Your task to perform on an android device: Open Google Chrome and open the bookmarks view Image 0: 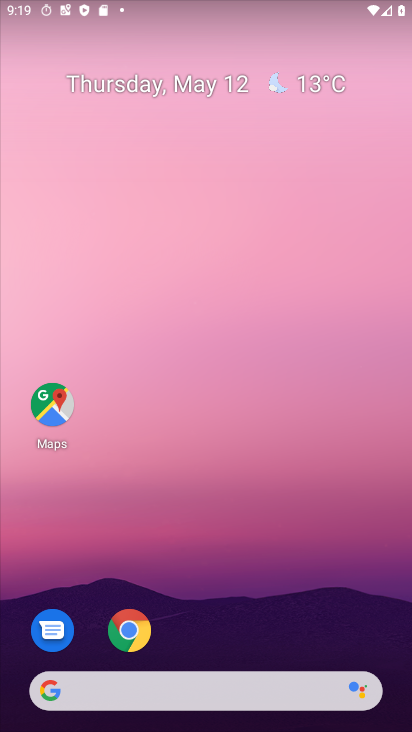
Step 0: click (118, 654)
Your task to perform on an android device: Open Google Chrome and open the bookmarks view Image 1: 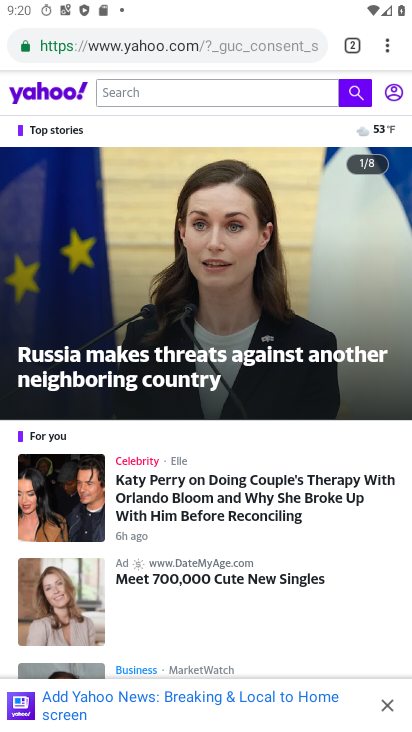
Step 1: task complete